Your task to perform on an android device: Search for sushi restaurants on Maps Image 0: 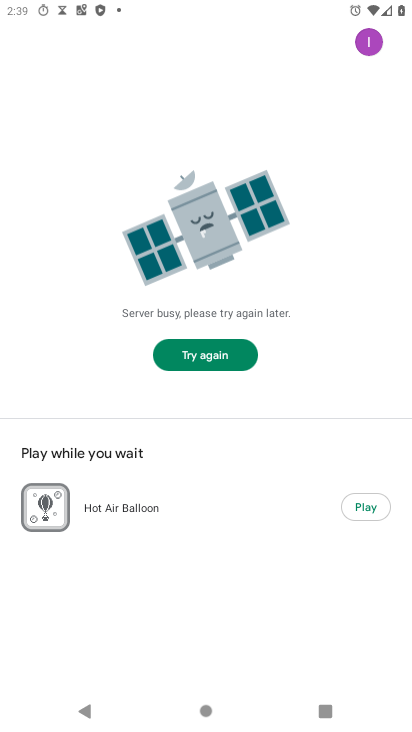
Step 0: press home button
Your task to perform on an android device: Search for sushi restaurants on Maps Image 1: 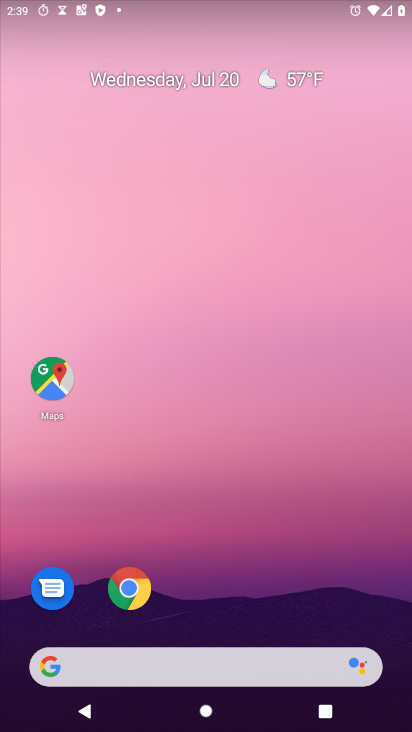
Step 1: drag from (340, 606) to (298, 0)
Your task to perform on an android device: Search for sushi restaurants on Maps Image 2: 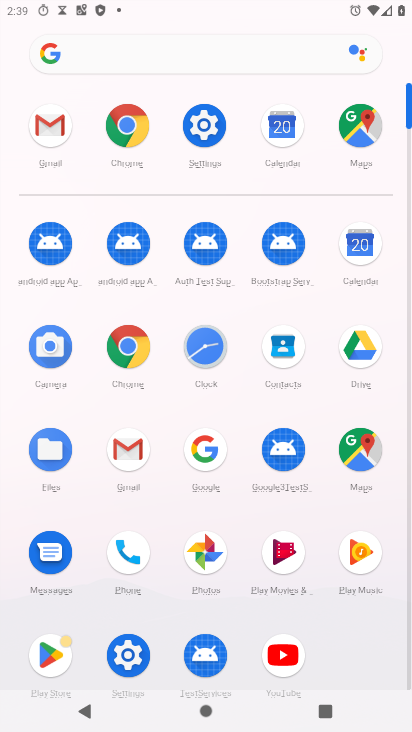
Step 2: click (369, 439)
Your task to perform on an android device: Search for sushi restaurants on Maps Image 3: 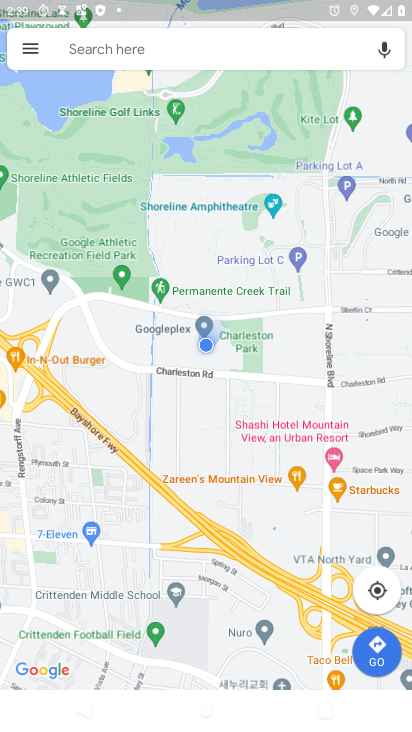
Step 3: click (169, 61)
Your task to perform on an android device: Search for sushi restaurants on Maps Image 4: 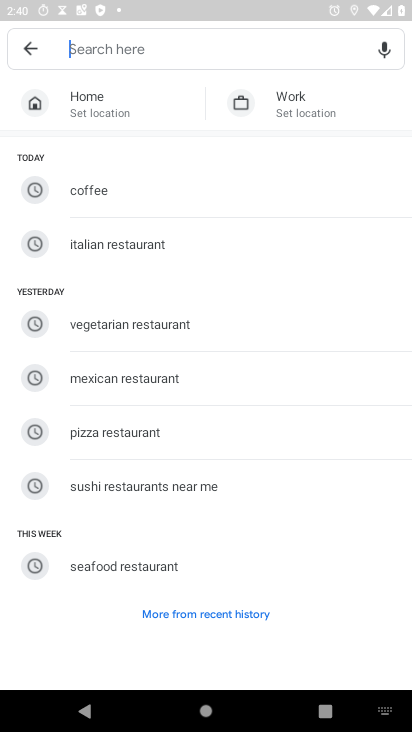
Step 4: type "sushi restaurant"
Your task to perform on an android device: Search for sushi restaurants on Maps Image 5: 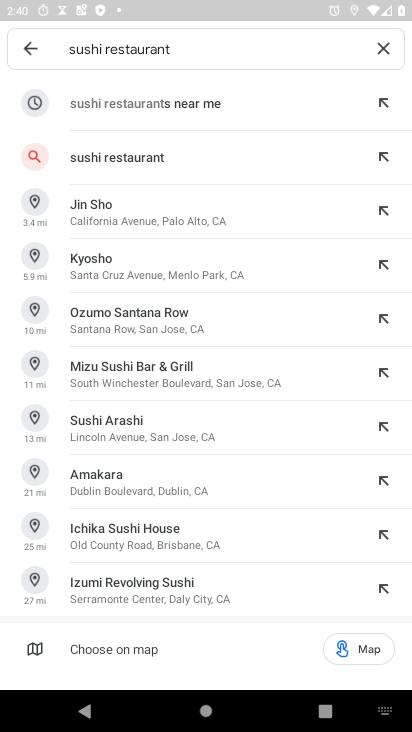
Step 5: click (121, 157)
Your task to perform on an android device: Search for sushi restaurants on Maps Image 6: 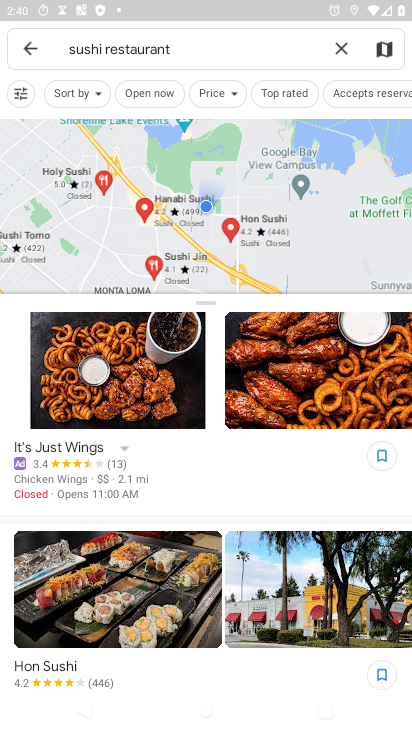
Step 6: task complete